Your task to perform on an android device: turn notification dots off Image 0: 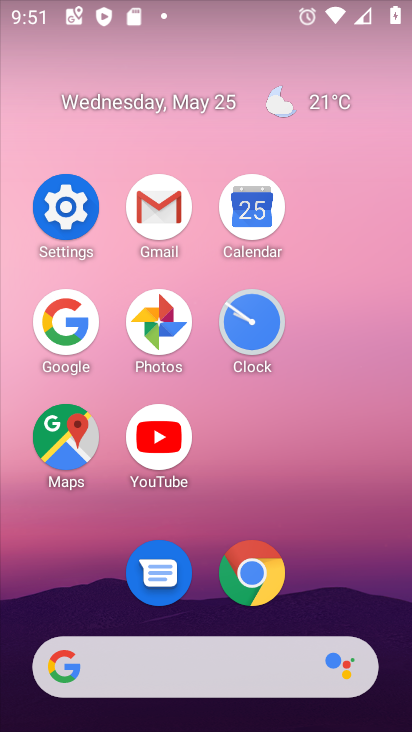
Step 0: click (68, 228)
Your task to perform on an android device: turn notification dots off Image 1: 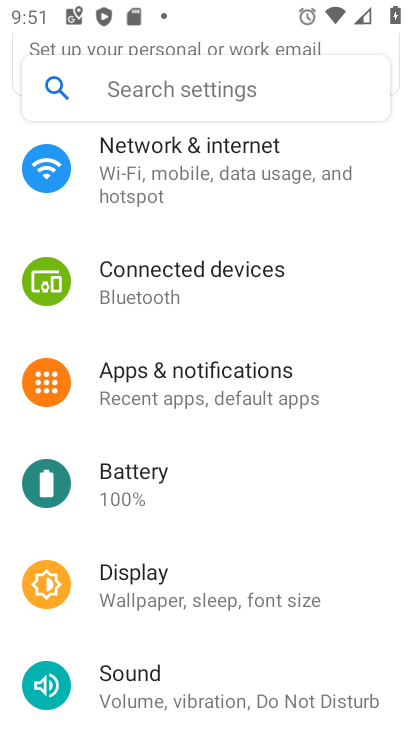
Step 1: click (279, 373)
Your task to perform on an android device: turn notification dots off Image 2: 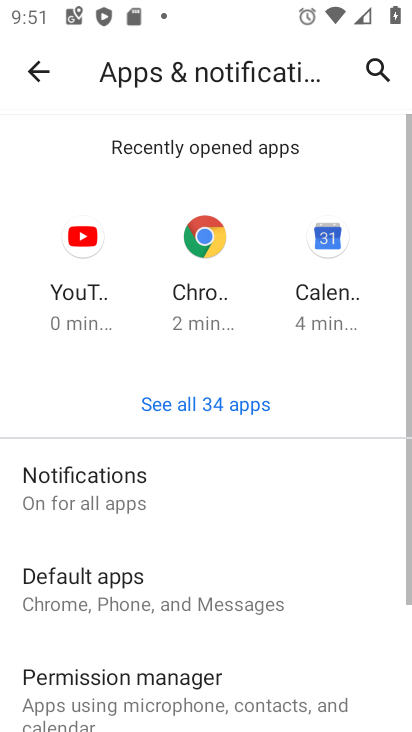
Step 2: drag from (242, 620) to (335, 197)
Your task to perform on an android device: turn notification dots off Image 3: 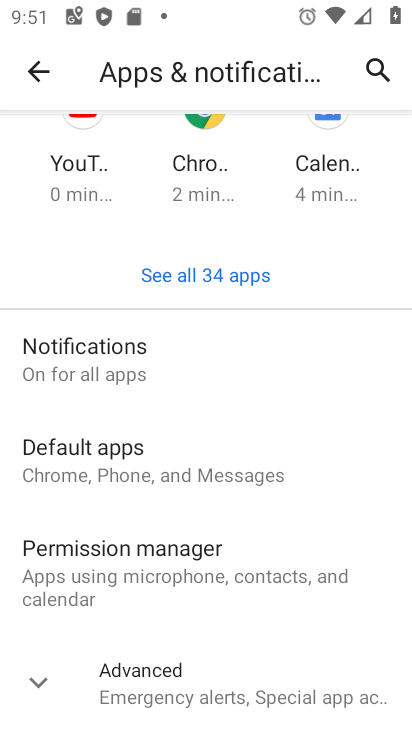
Step 3: click (191, 345)
Your task to perform on an android device: turn notification dots off Image 4: 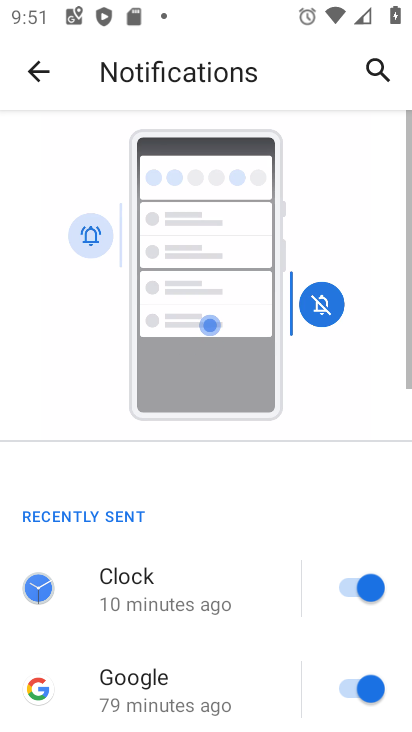
Step 4: drag from (257, 664) to (309, 73)
Your task to perform on an android device: turn notification dots off Image 5: 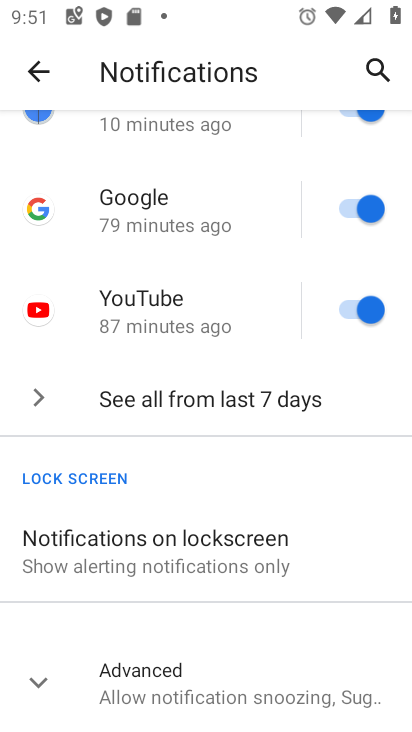
Step 5: click (186, 669)
Your task to perform on an android device: turn notification dots off Image 6: 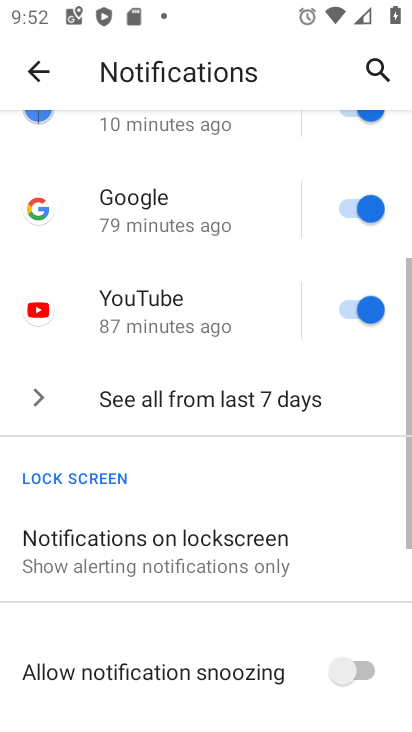
Step 6: task complete